Your task to perform on an android device: turn on sleep mode Image 0: 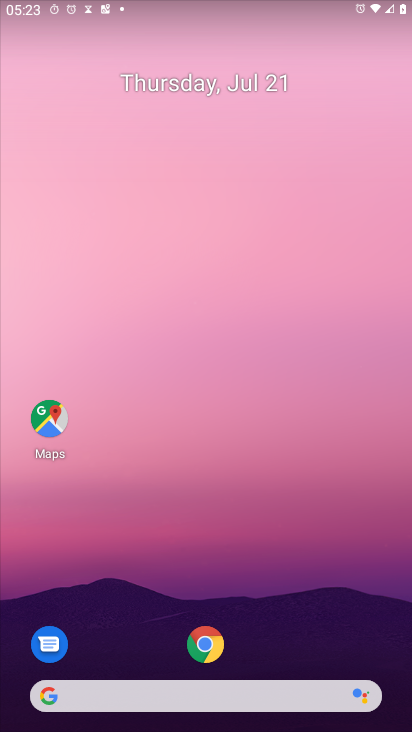
Step 0: press home button
Your task to perform on an android device: turn on sleep mode Image 1: 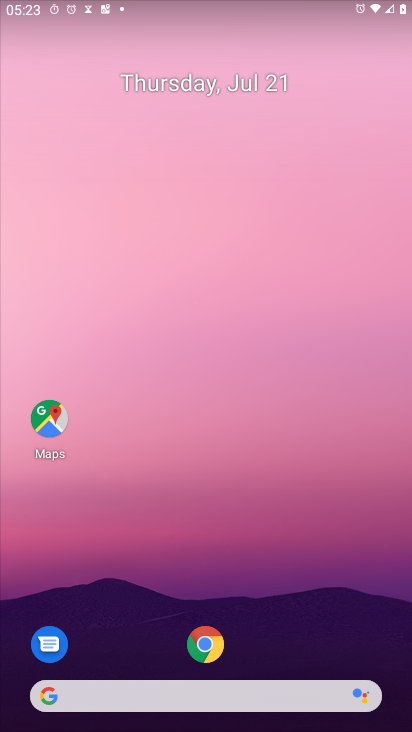
Step 1: drag from (194, 0) to (174, 144)
Your task to perform on an android device: turn on sleep mode Image 2: 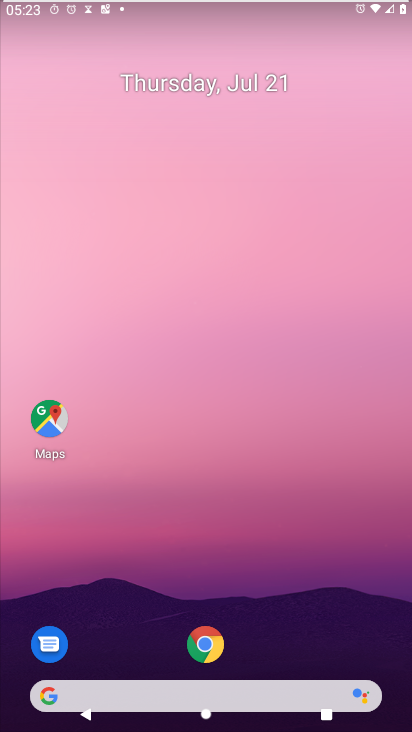
Step 2: drag from (250, 474) to (267, 67)
Your task to perform on an android device: turn on sleep mode Image 3: 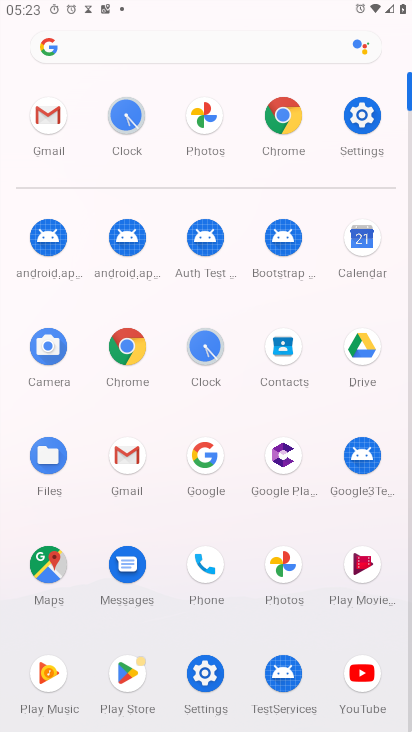
Step 3: click (360, 115)
Your task to perform on an android device: turn on sleep mode Image 4: 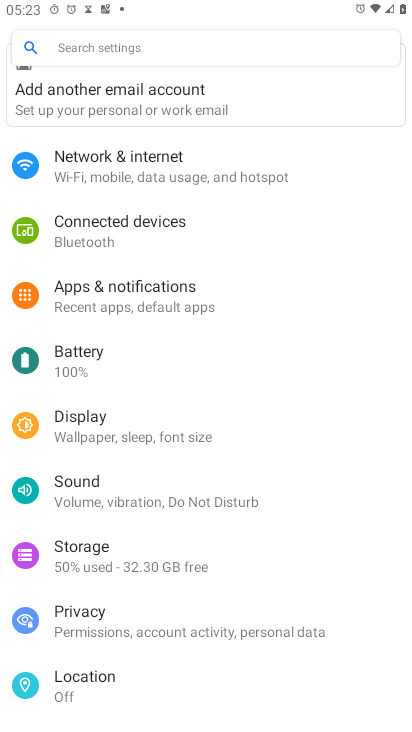
Step 4: click (81, 426)
Your task to perform on an android device: turn on sleep mode Image 5: 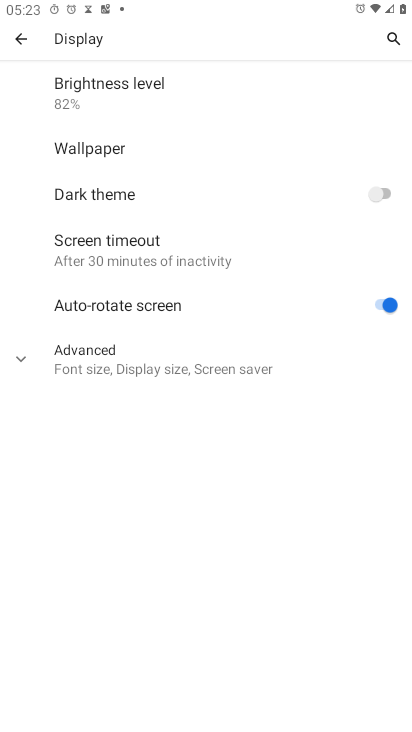
Step 5: click (25, 357)
Your task to perform on an android device: turn on sleep mode Image 6: 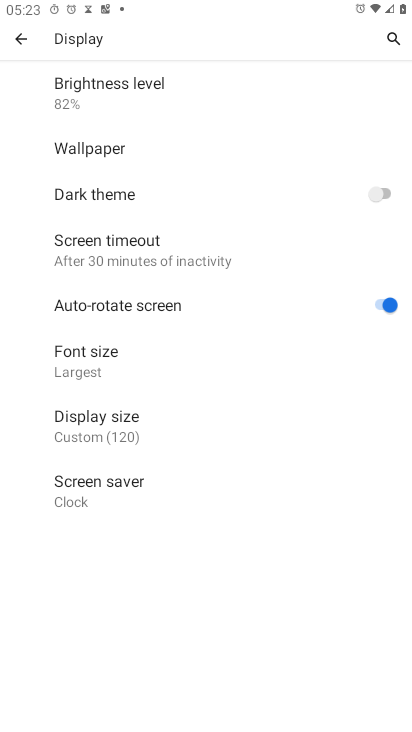
Step 6: task complete